Your task to perform on an android device: Go to Wikipedia Image 0: 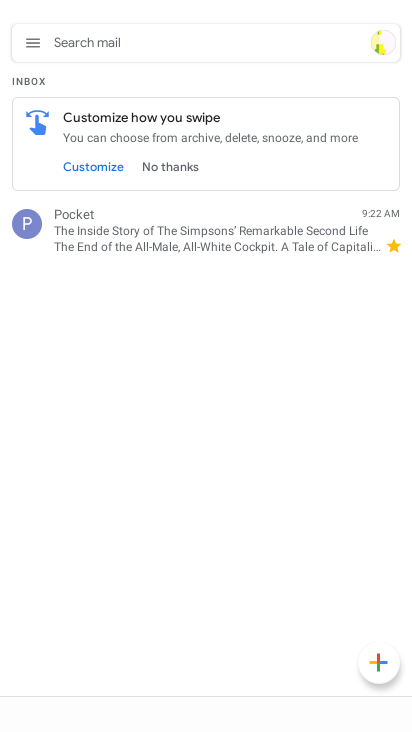
Step 0: press home button
Your task to perform on an android device: Go to Wikipedia Image 1: 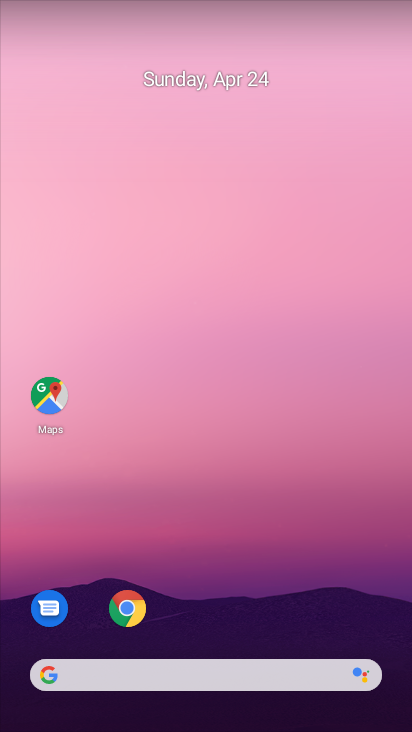
Step 1: click (134, 599)
Your task to perform on an android device: Go to Wikipedia Image 2: 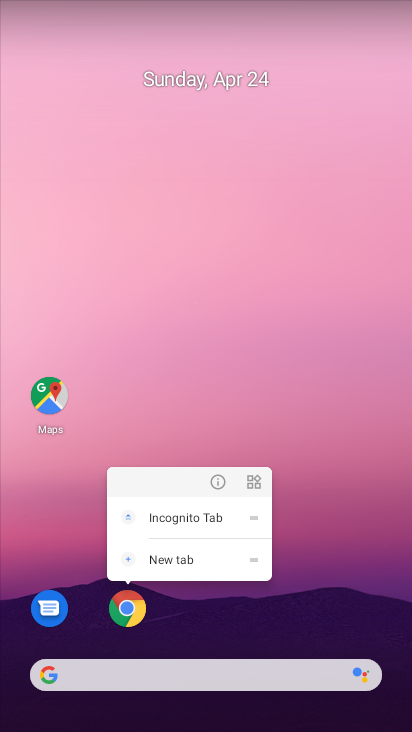
Step 2: click (135, 596)
Your task to perform on an android device: Go to Wikipedia Image 3: 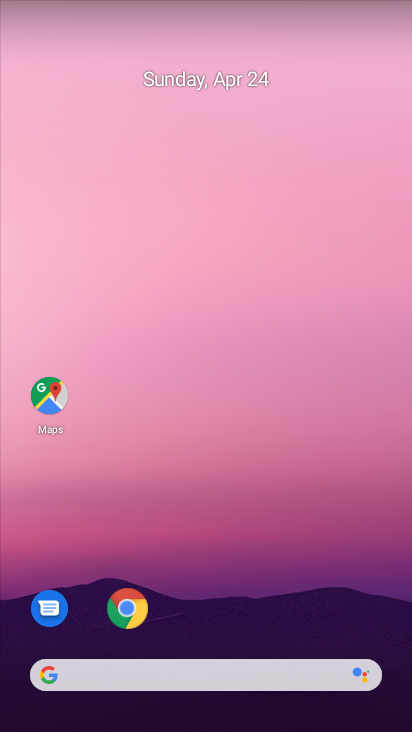
Step 3: click (135, 596)
Your task to perform on an android device: Go to Wikipedia Image 4: 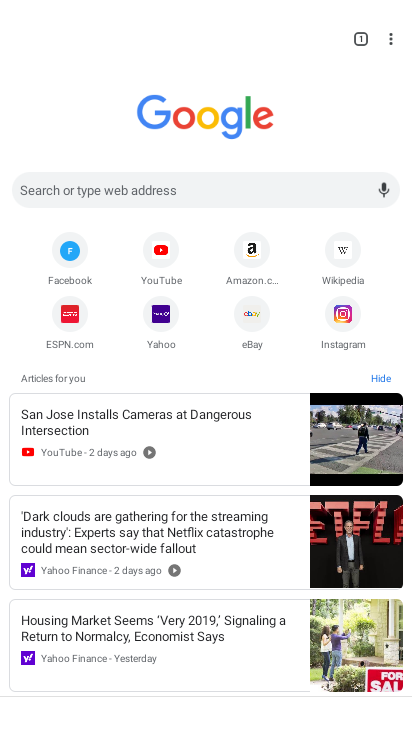
Step 4: click (350, 247)
Your task to perform on an android device: Go to Wikipedia Image 5: 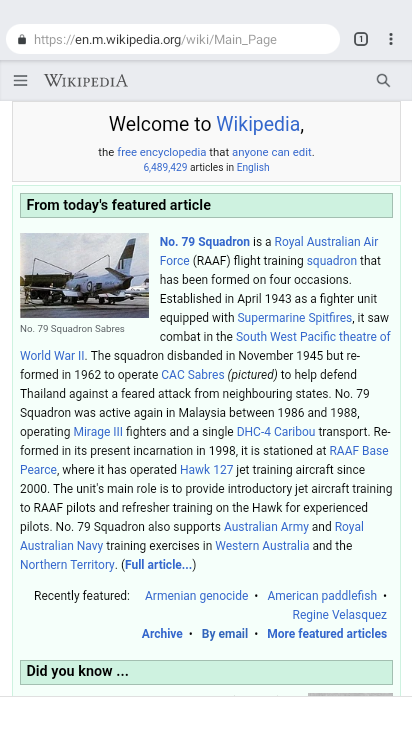
Step 5: task complete